Your task to perform on an android device: uninstall "Mercado Libre" Image 0: 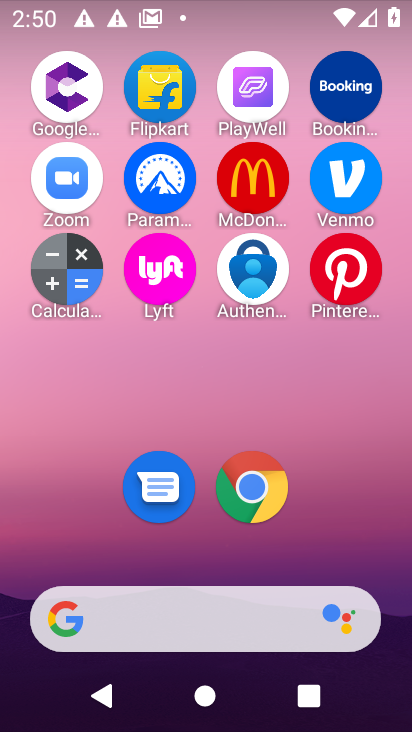
Step 0: drag from (188, 638) to (261, 233)
Your task to perform on an android device: uninstall "Mercado Libre" Image 1: 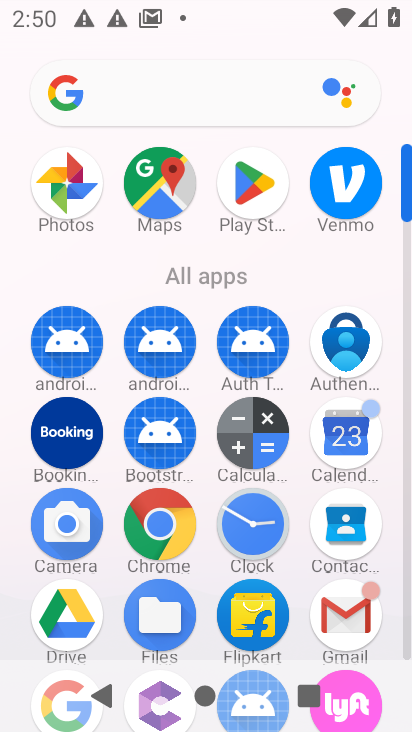
Step 1: click (255, 187)
Your task to perform on an android device: uninstall "Mercado Libre" Image 2: 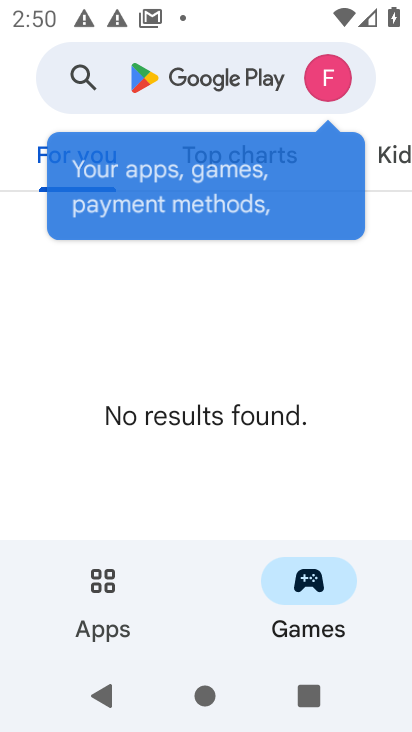
Step 2: click (223, 71)
Your task to perform on an android device: uninstall "Mercado Libre" Image 3: 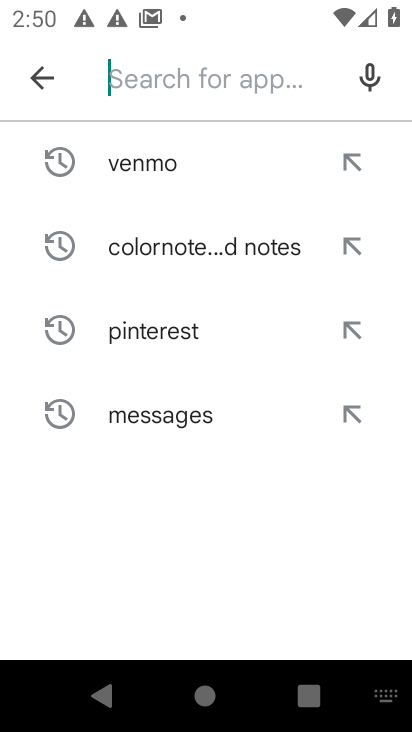
Step 3: type "Mercado Libre"
Your task to perform on an android device: uninstall "Mercado Libre" Image 4: 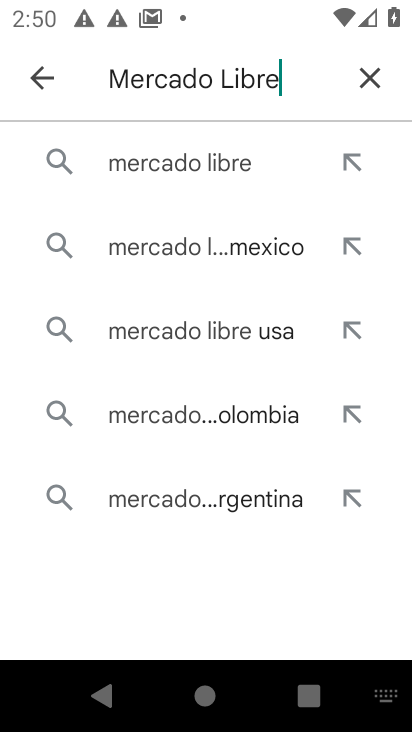
Step 4: click (188, 164)
Your task to perform on an android device: uninstall "Mercado Libre" Image 5: 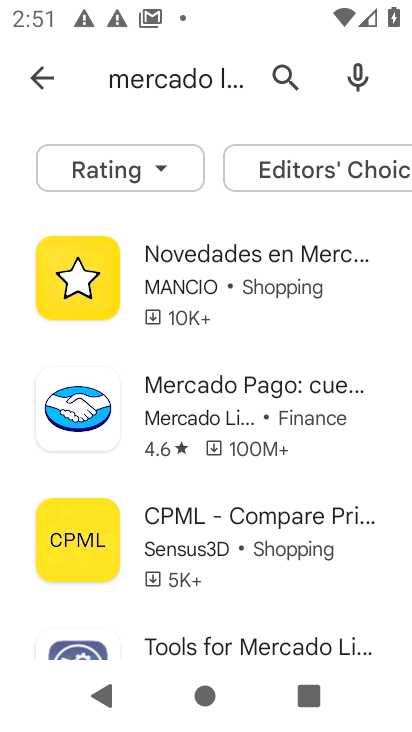
Step 5: task complete